Your task to perform on an android device: See recent photos Image 0: 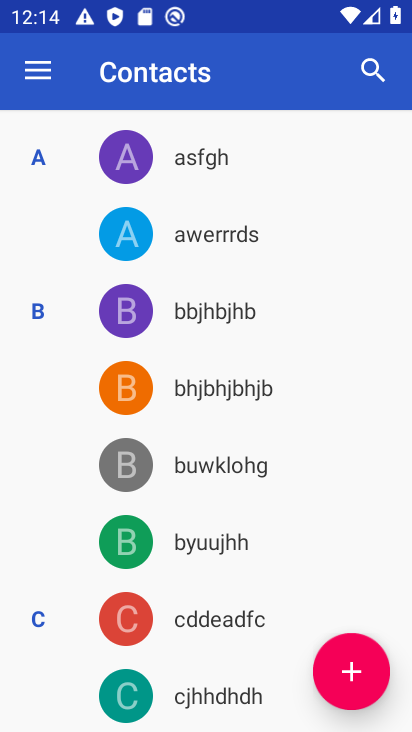
Step 0: press home button
Your task to perform on an android device: See recent photos Image 1: 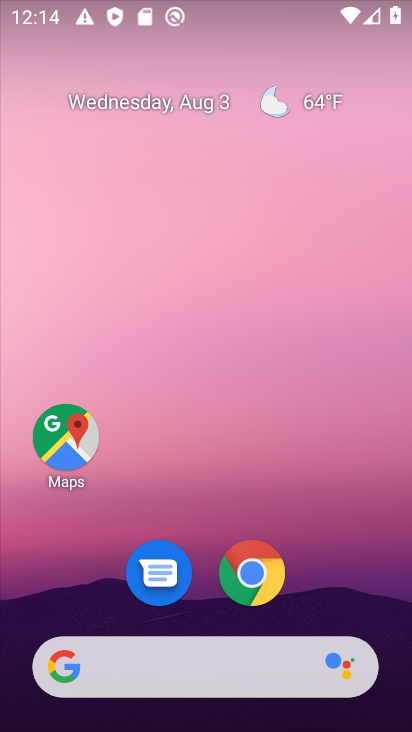
Step 1: drag from (205, 554) to (268, 118)
Your task to perform on an android device: See recent photos Image 2: 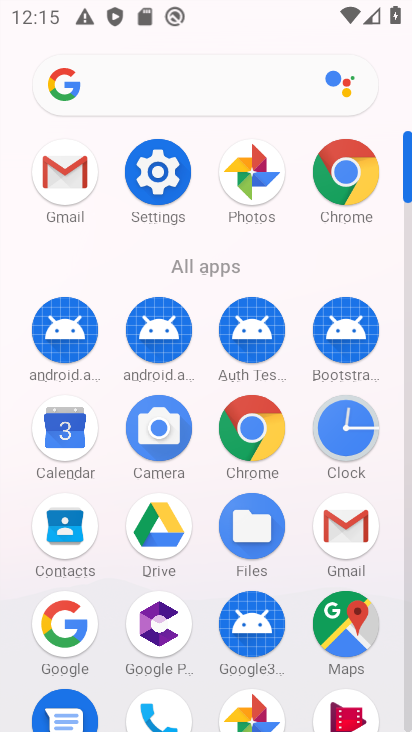
Step 2: drag from (196, 496) to (231, 139)
Your task to perform on an android device: See recent photos Image 3: 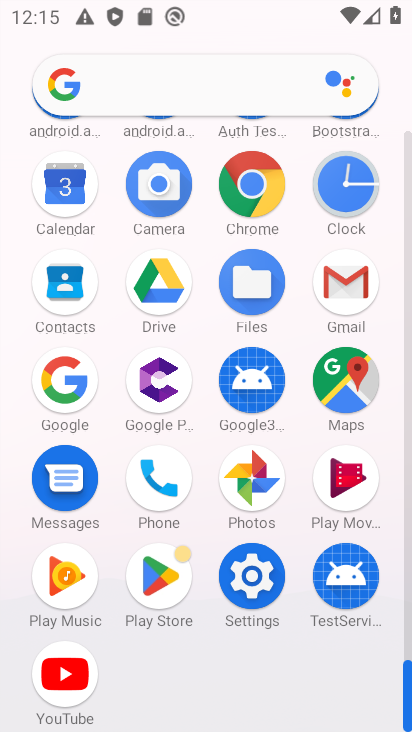
Step 3: click (237, 490)
Your task to perform on an android device: See recent photos Image 4: 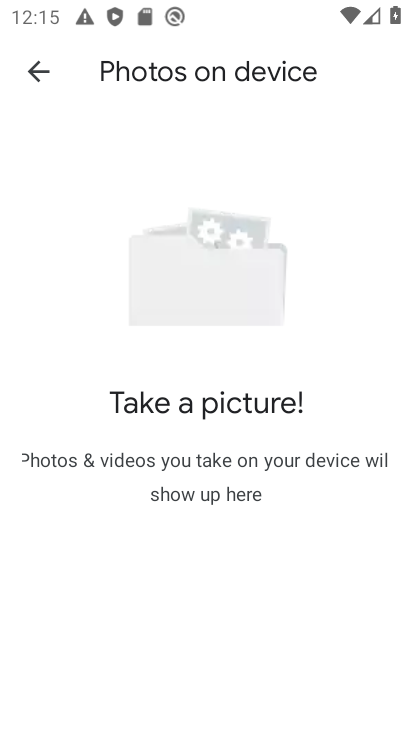
Step 4: click (46, 77)
Your task to perform on an android device: See recent photos Image 5: 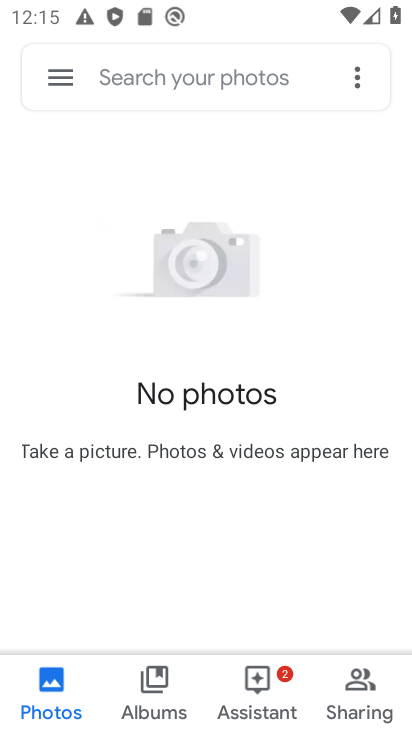
Step 5: task complete